Your task to perform on an android device: empty trash in google photos Image 0: 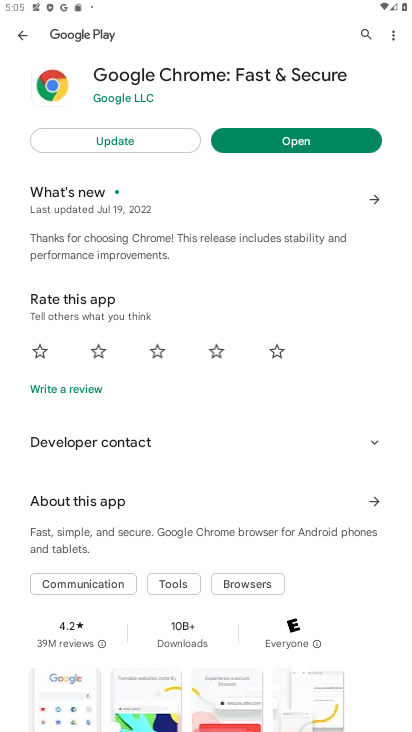
Step 0: press home button
Your task to perform on an android device: empty trash in google photos Image 1: 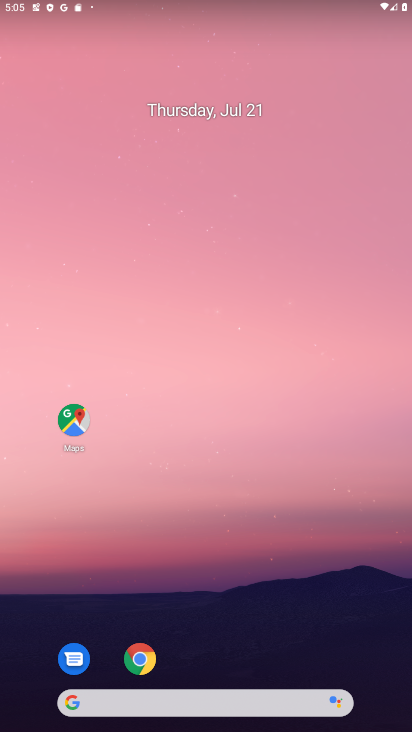
Step 1: drag from (165, 536) to (91, 50)
Your task to perform on an android device: empty trash in google photos Image 2: 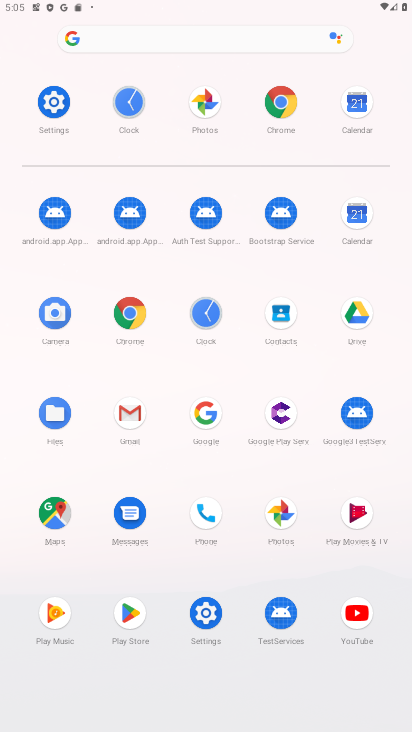
Step 2: click (276, 520)
Your task to perform on an android device: empty trash in google photos Image 3: 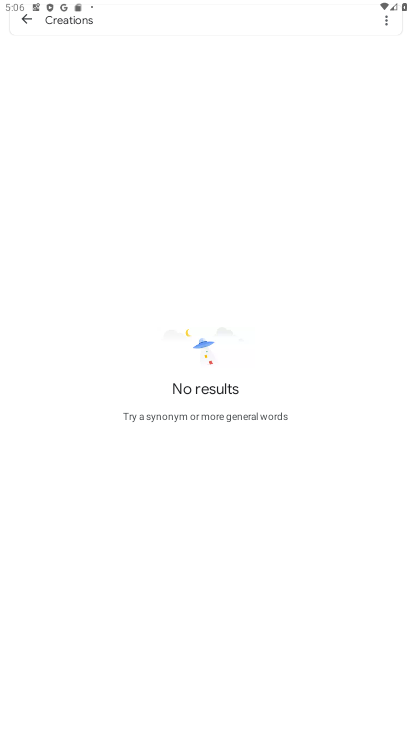
Step 3: click (24, 15)
Your task to perform on an android device: empty trash in google photos Image 4: 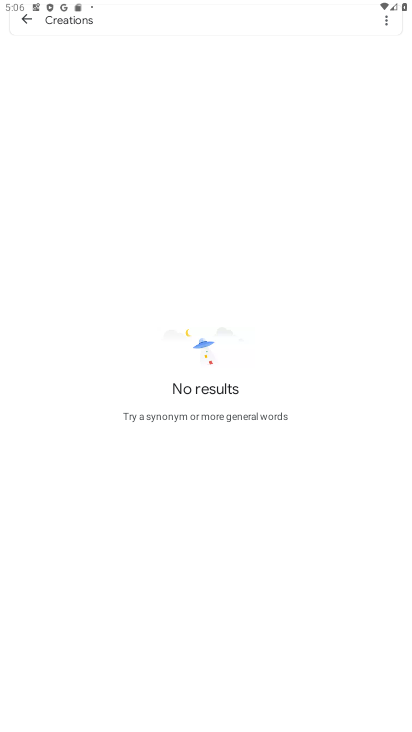
Step 4: click (27, 19)
Your task to perform on an android device: empty trash in google photos Image 5: 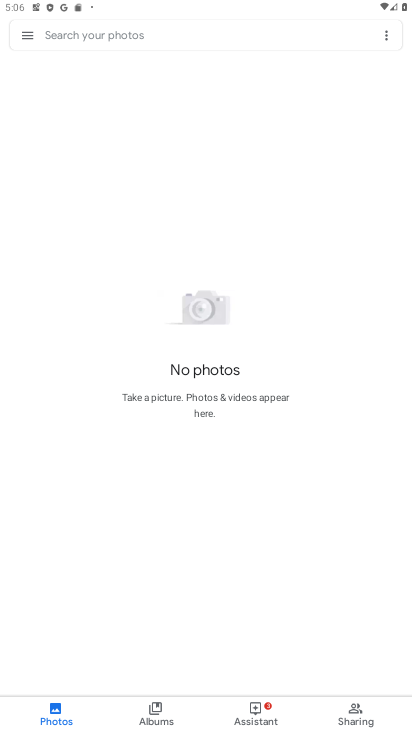
Step 5: click (29, 36)
Your task to perform on an android device: empty trash in google photos Image 6: 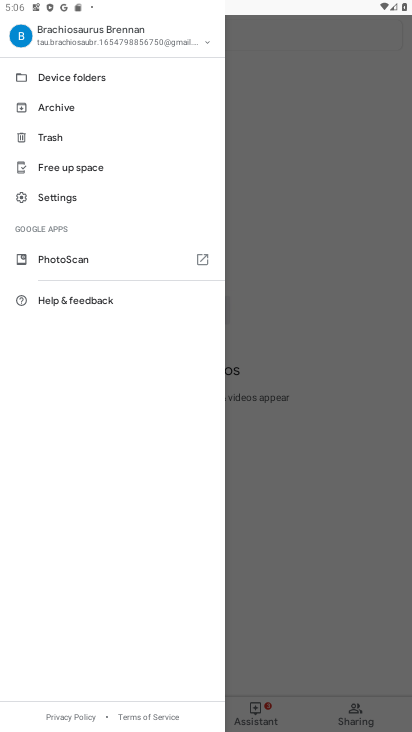
Step 6: click (46, 132)
Your task to perform on an android device: empty trash in google photos Image 7: 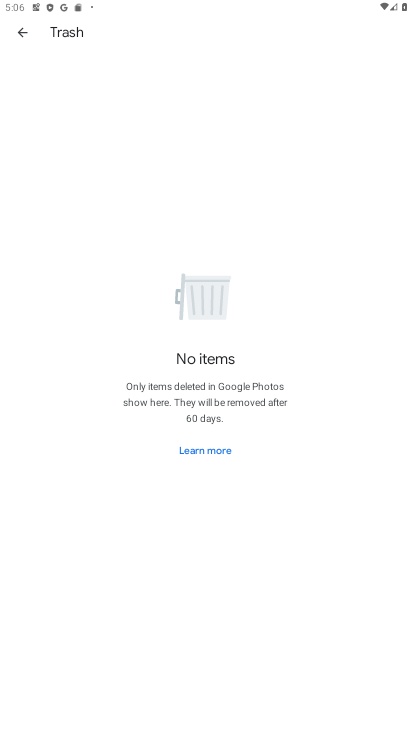
Step 7: task complete